Your task to perform on an android device: Go to Reddit.com Image 0: 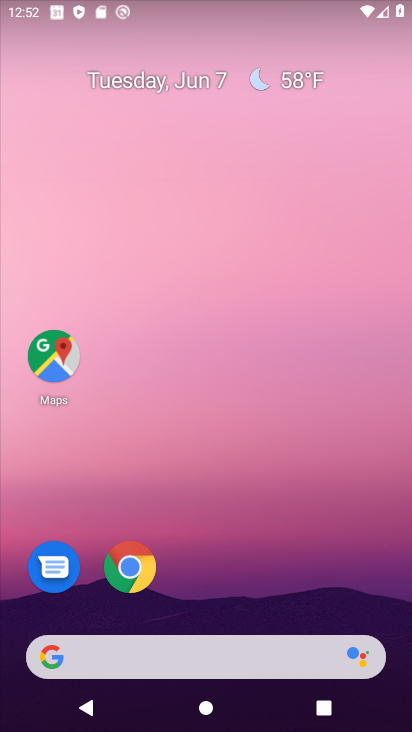
Step 0: click (139, 563)
Your task to perform on an android device: Go to Reddit.com Image 1: 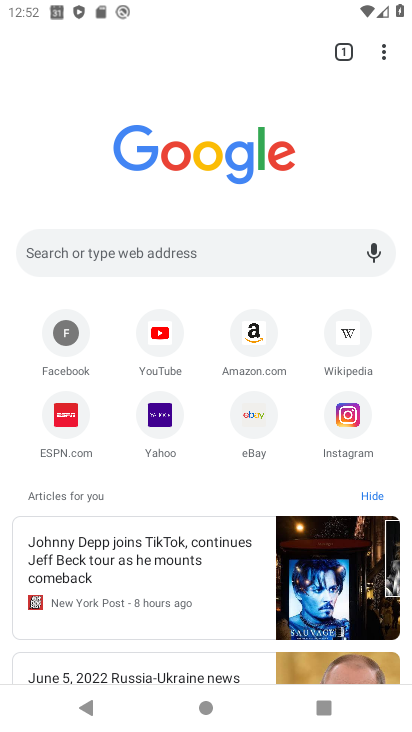
Step 1: click (189, 241)
Your task to perform on an android device: Go to Reddit.com Image 2: 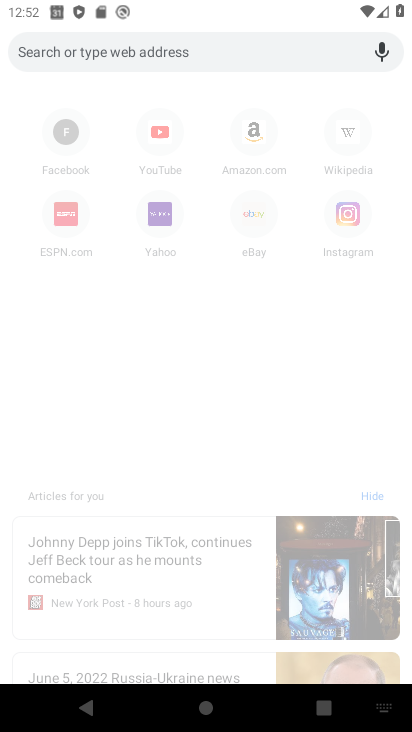
Step 2: type "Reddit.com"
Your task to perform on an android device: Go to Reddit.com Image 3: 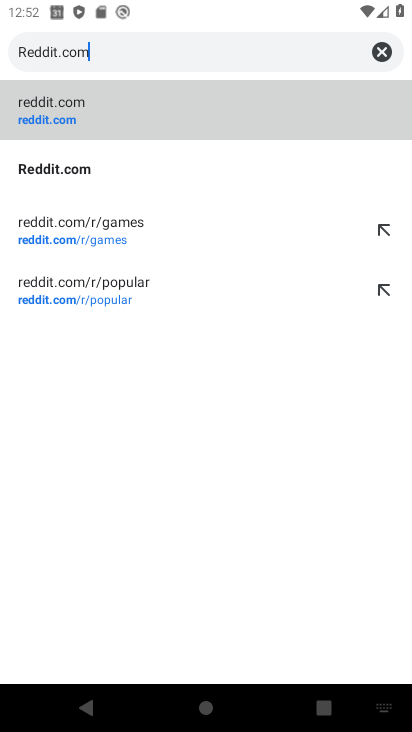
Step 3: click (30, 163)
Your task to perform on an android device: Go to Reddit.com Image 4: 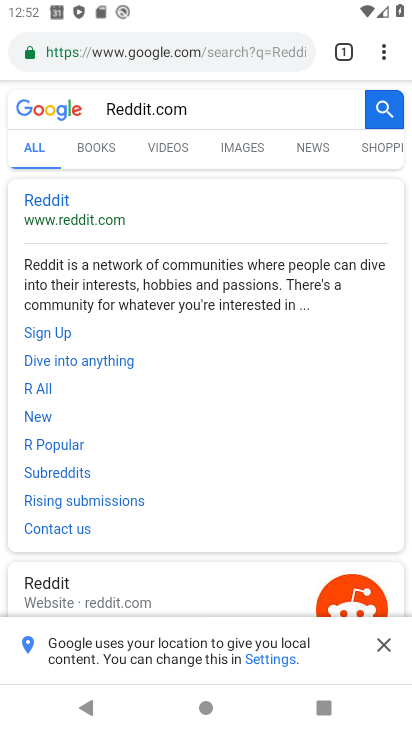
Step 4: task complete